Your task to perform on an android device: see sites visited before in the chrome app Image 0: 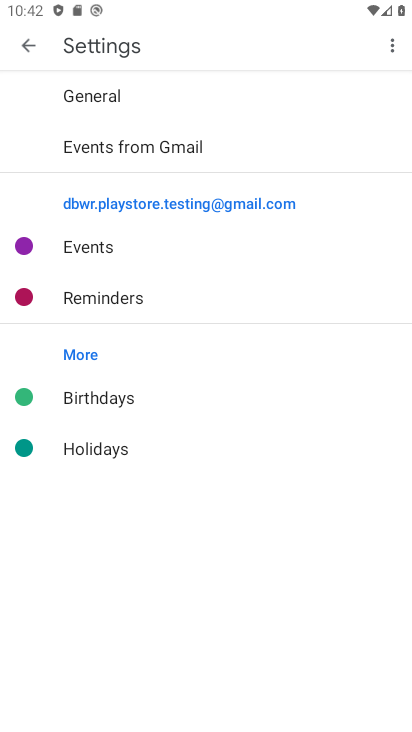
Step 0: press home button
Your task to perform on an android device: see sites visited before in the chrome app Image 1: 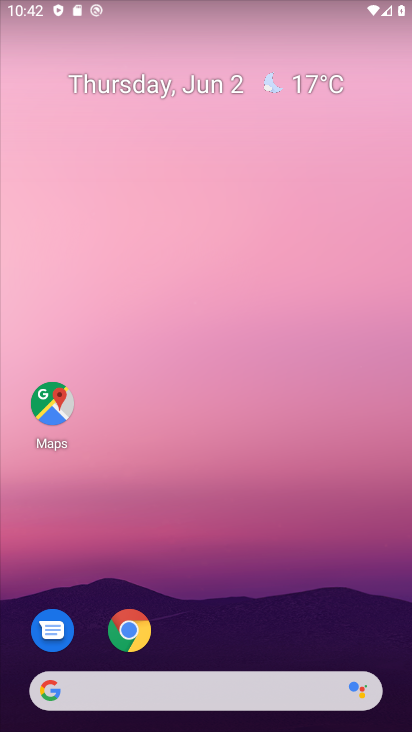
Step 1: click (144, 644)
Your task to perform on an android device: see sites visited before in the chrome app Image 2: 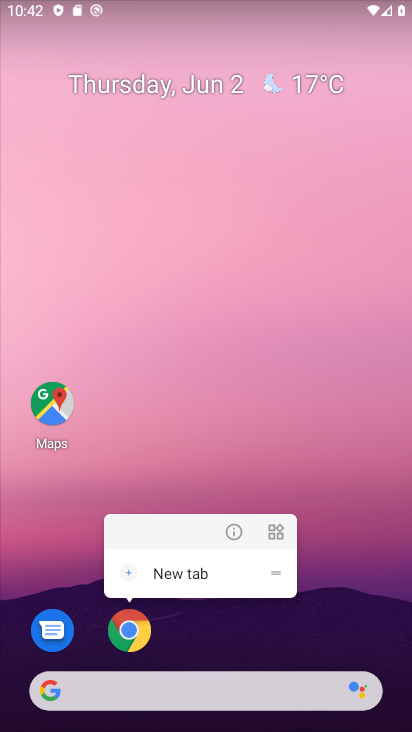
Step 2: click (127, 629)
Your task to perform on an android device: see sites visited before in the chrome app Image 3: 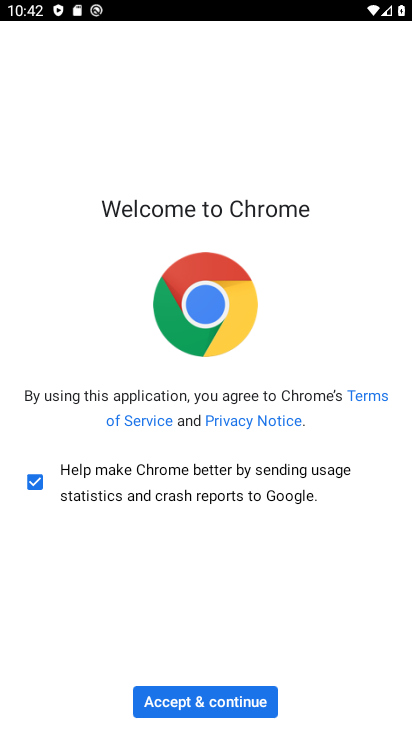
Step 3: click (217, 698)
Your task to perform on an android device: see sites visited before in the chrome app Image 4: 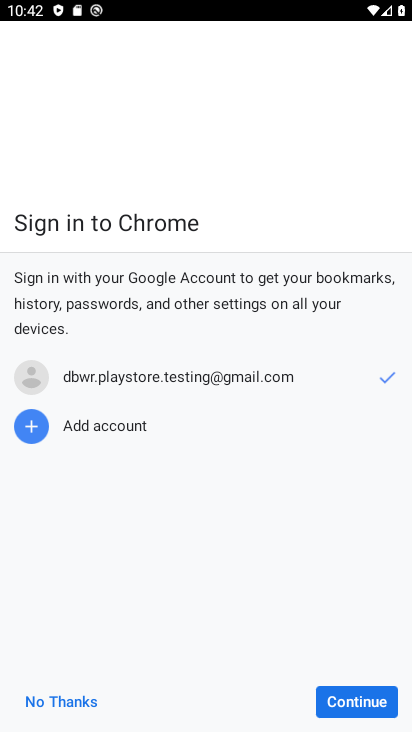
Step 4: click (368, 708)
Your task to perform on an android device: see sites visited before in the chrome app Image 5: 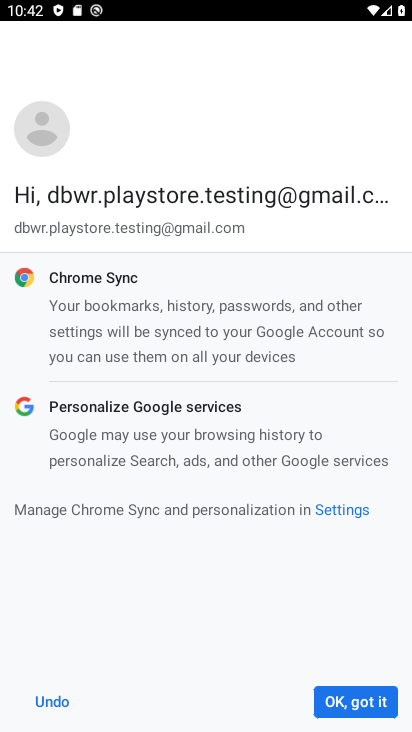
Step 5: click (358, 705)
Your task to perform on an android device: see sites visited before in the chrome app Image 6: 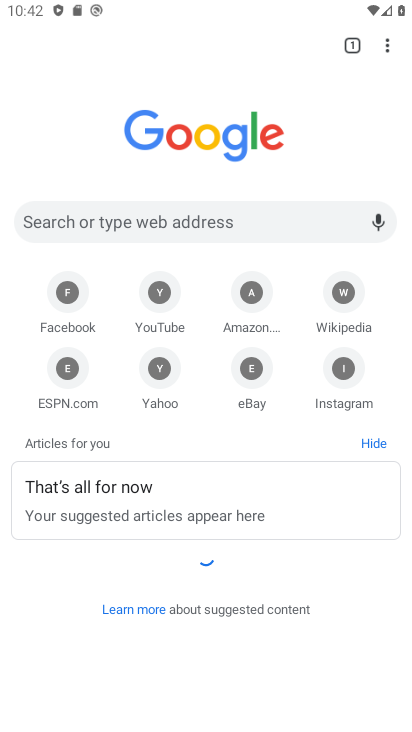
Step 6: click (386, 46)
Your task to perform on an android device: see sites visited before in the chrome app Image 7: 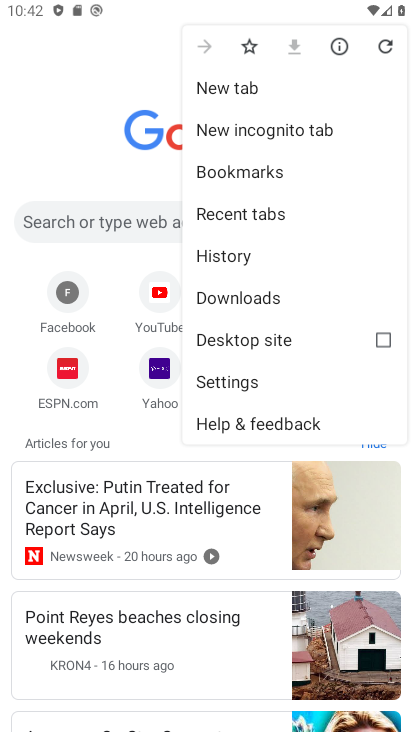
Step 7: click (236, 265)
Your task to perform on an android device: see sites visited before in the chrome app Image 8: 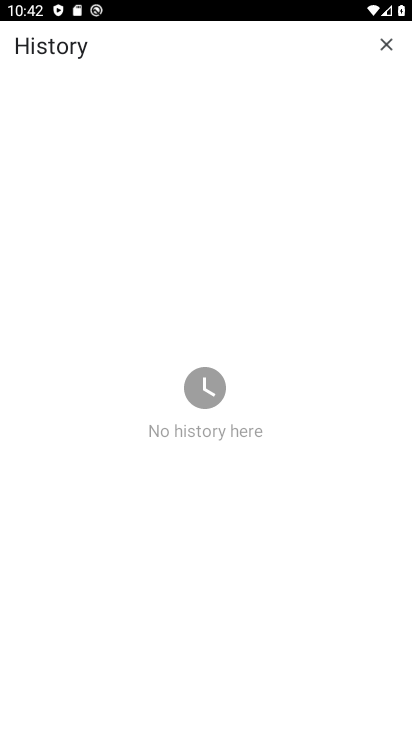
Step 8: task complete